Your task to perform on an android device: open sync settings in chrome Image 0: 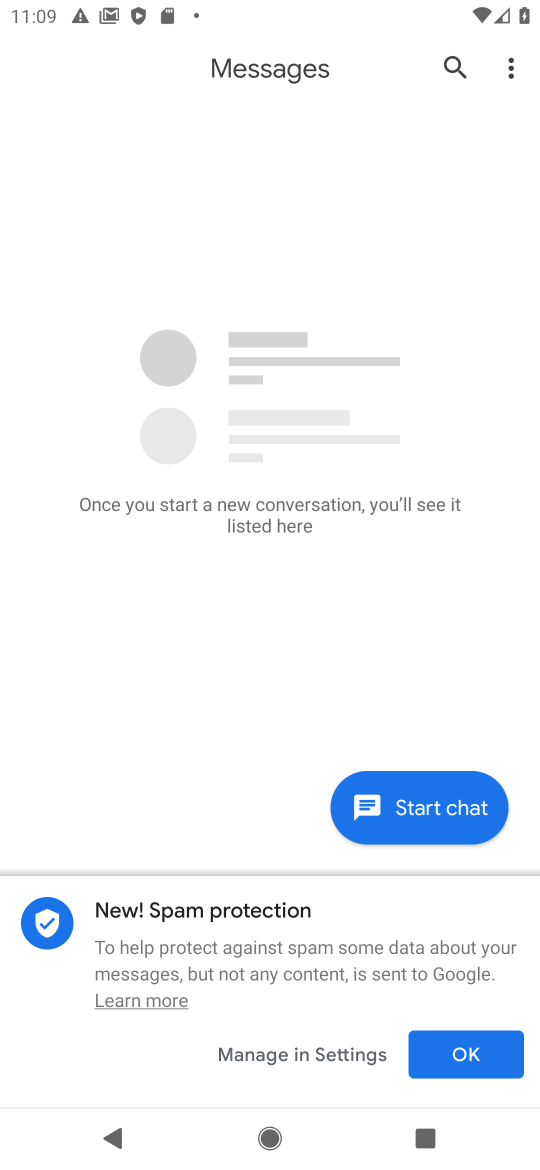
Step 0: press home button
Your task to perform on an android device: open sync settings in chrome Image 1: 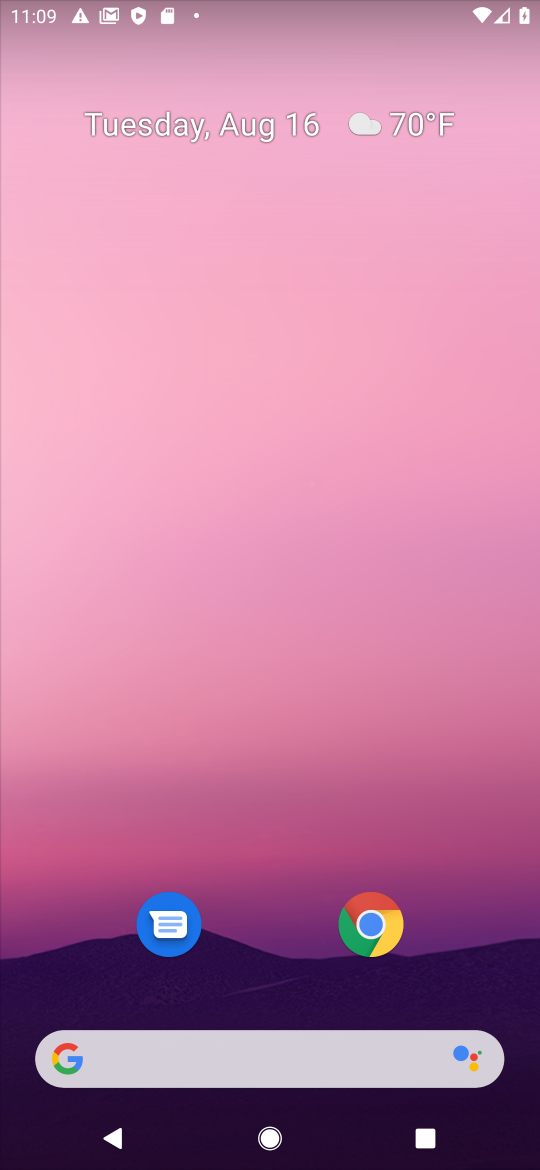
Step 1: click (366, 921)
Your task to perform on an android device: open sync settings in chrome Image 2: 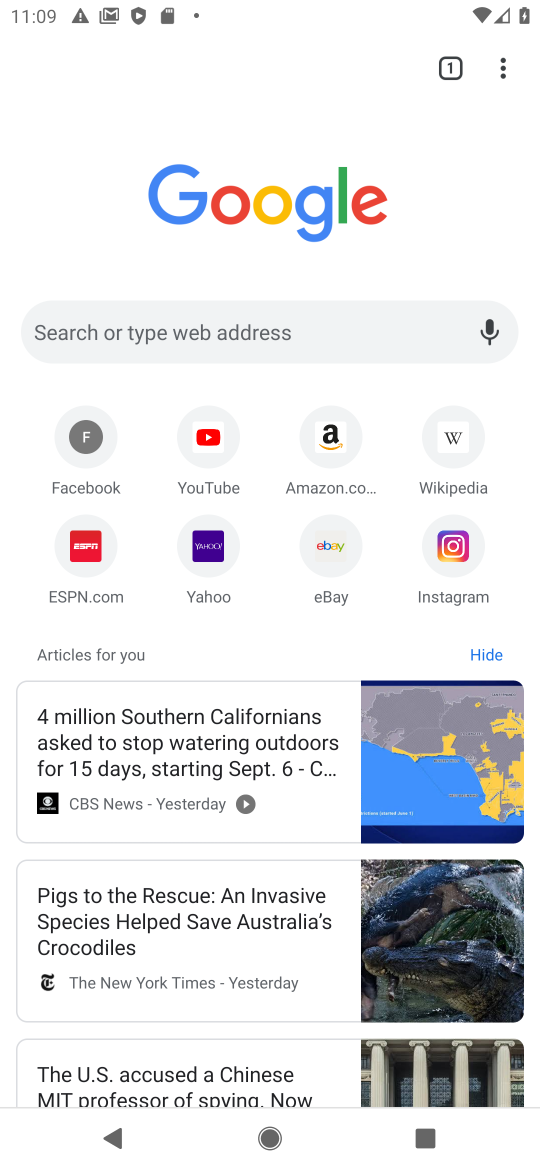
Step 2: click (516, 64)
Your task to perform on an android device: open sync settings in chrome Image 3: 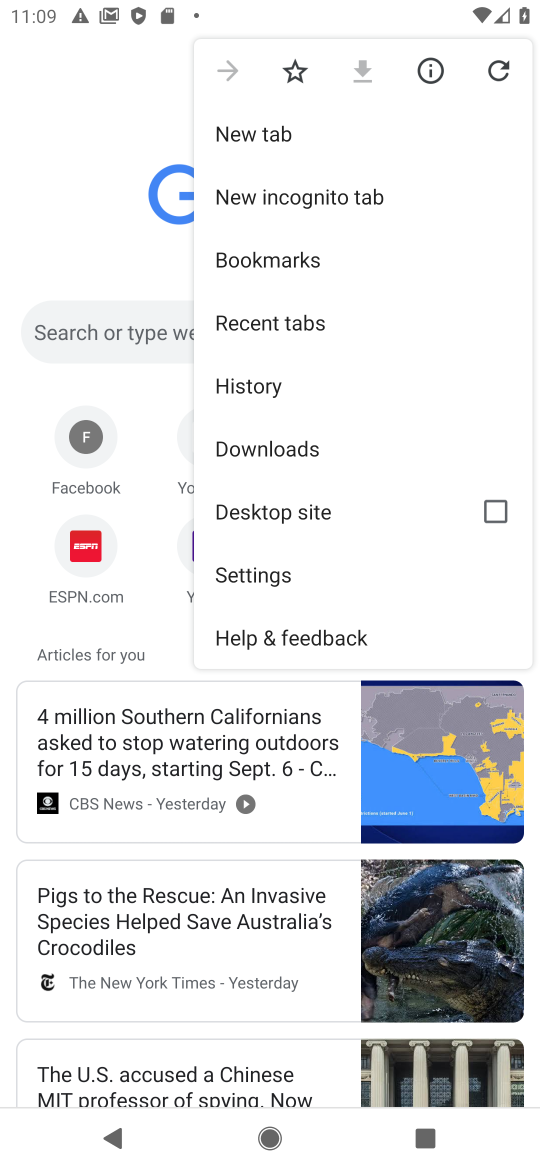
Step 3: click (238, 586)
Your task to perform on an android device: open sync settings in chrome Image 4: 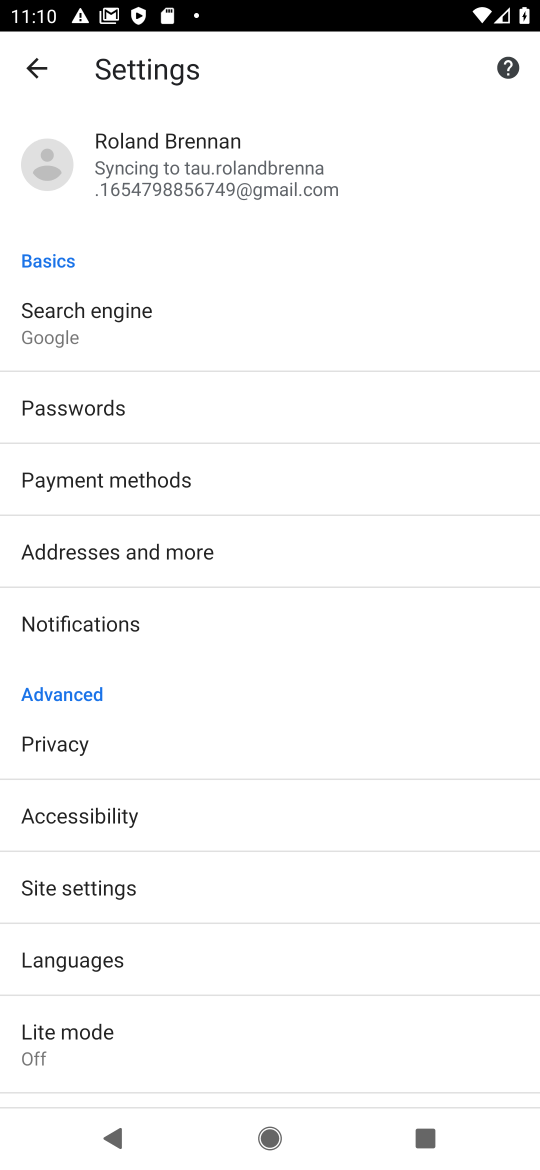
Step 4: click (232, 153)
Your task to perform on an android device: open sync settings in chrome Image 5: 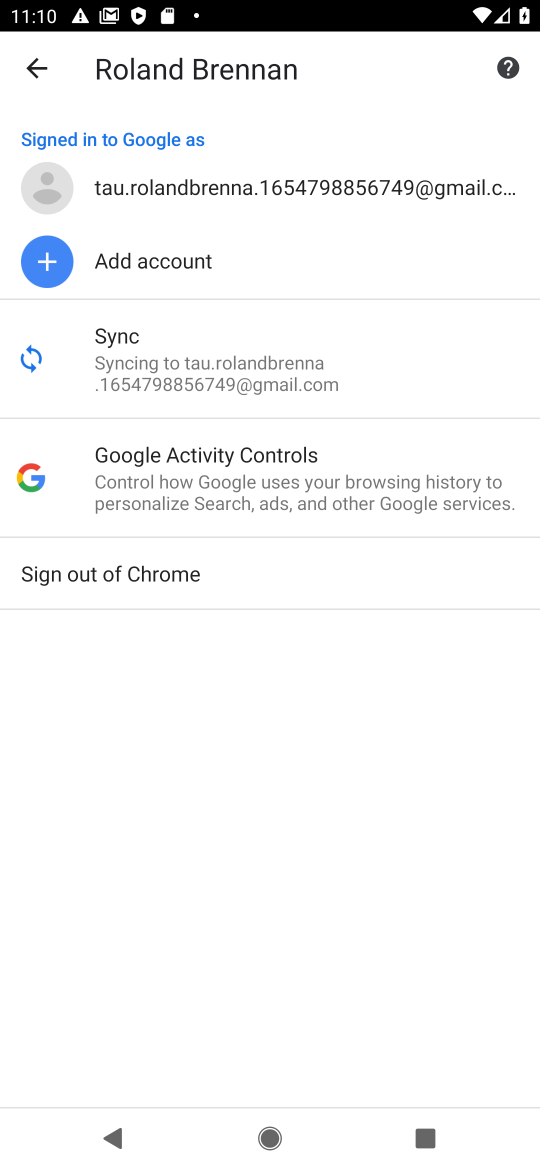
Step 5: click (196, 364)
Your task to perform on an android device: open sync settings in chrome Image 6: 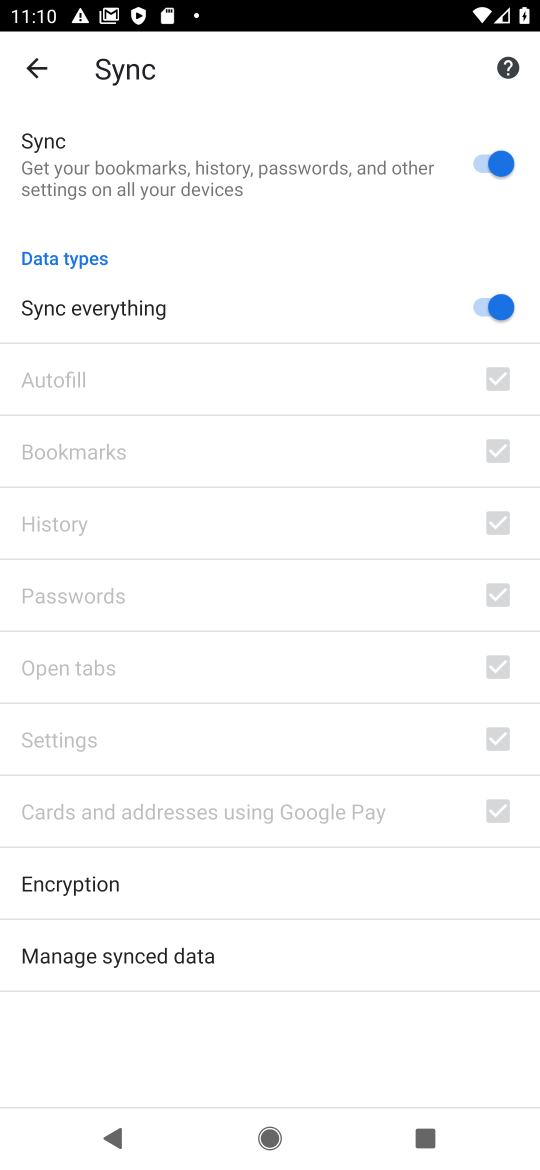
Step 6: task complete